Your task to perform on an android device: Open Android settings Image 0: 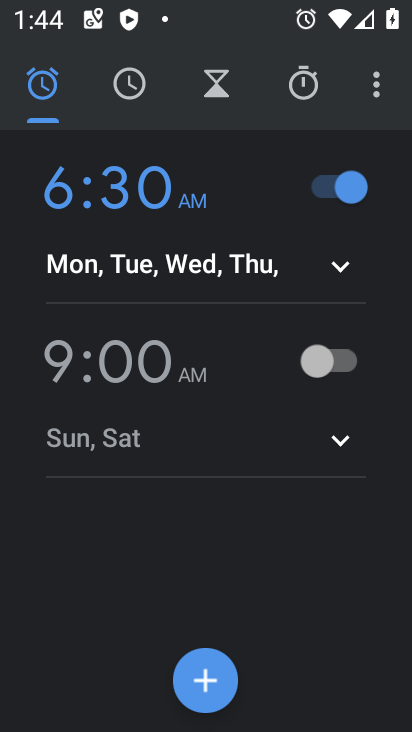
Step 0: press home button
Your task to perform on an android device: Open Android settings Image 1: 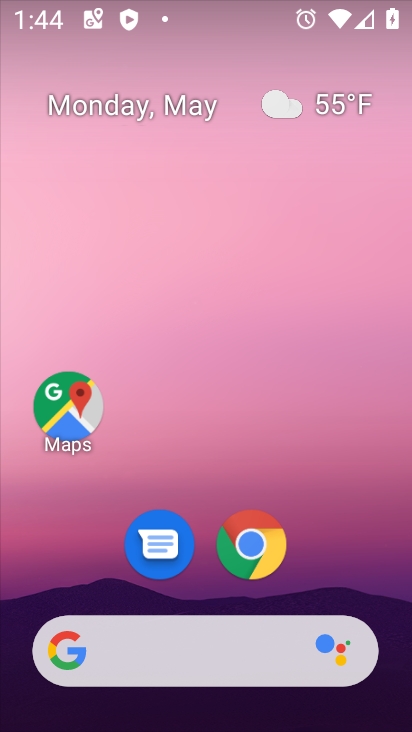
Step 1: drag from (401, 639) to (328, 6)
Your task to perform on an android device: Open Android settings Image 2: 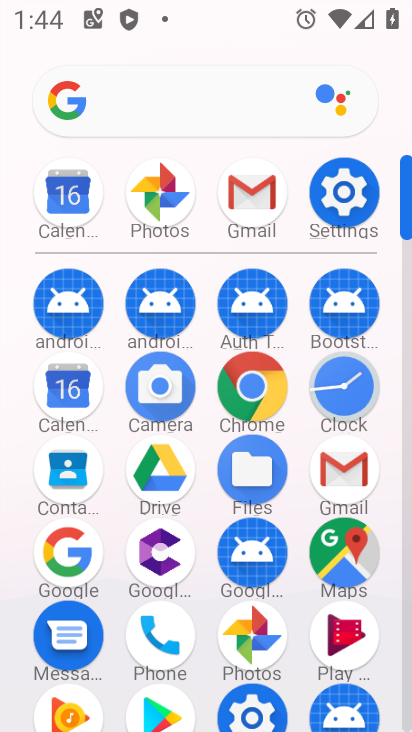
Step 2: click (409, 703)
Your task to perform on an android device: Open Android settings Image 3: 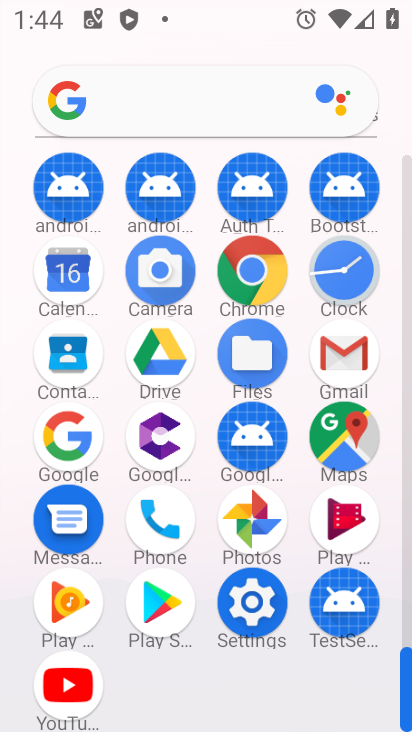
Step 3: click (251, 596)
Your task to perform on an android device: Open Android settings Image 4: 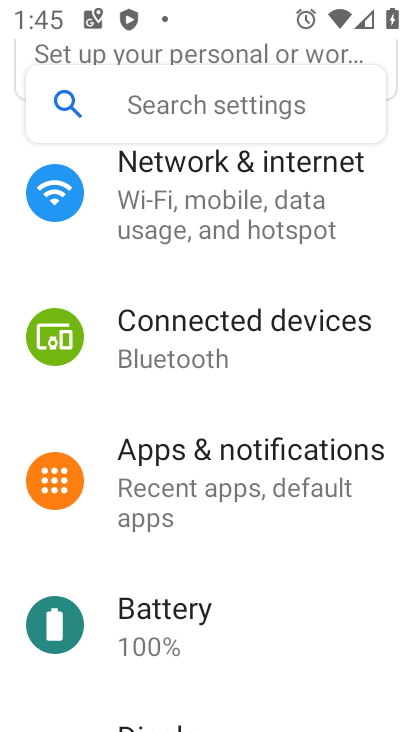
Step 4: drag from (286, 668) to (299, 199)
Your task to perform on an android device: Open Android settings Image 5: 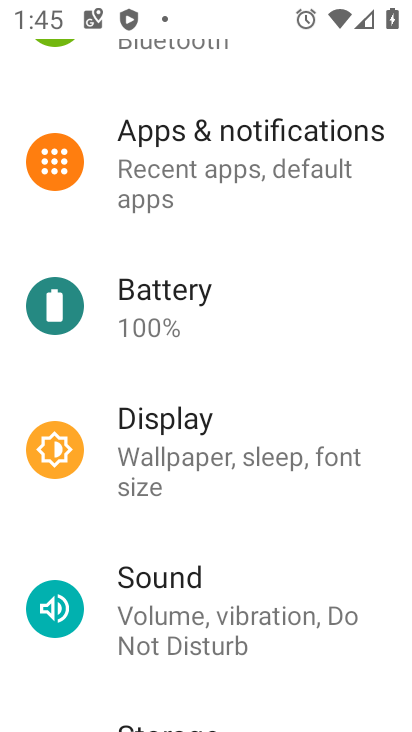
Step 5: drag from (333, 633) to (348, 251)
Your task to perform on an android device: Open Android settings Image 6: 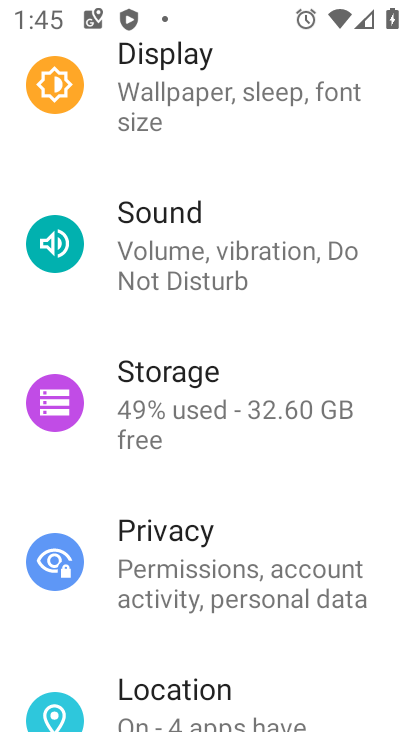
Step 6: drag from (368, 590) to (355, 125)
Your task to perform on an android device: Open Android settings Image 7: 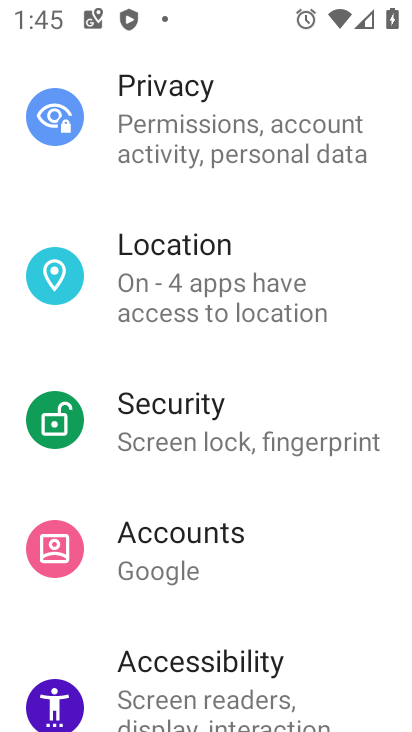
Step 7: drag from (344, 590) to (375, 244)
Your task to perform on an android device: Open Android settings Image 8: 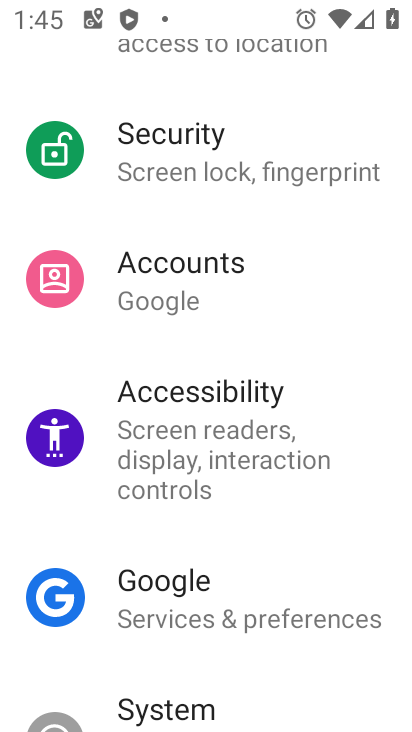
Step 8: drag from (360, 637) to (346, 141)
Your task to perform on an android device: Open Android settings Image 9: 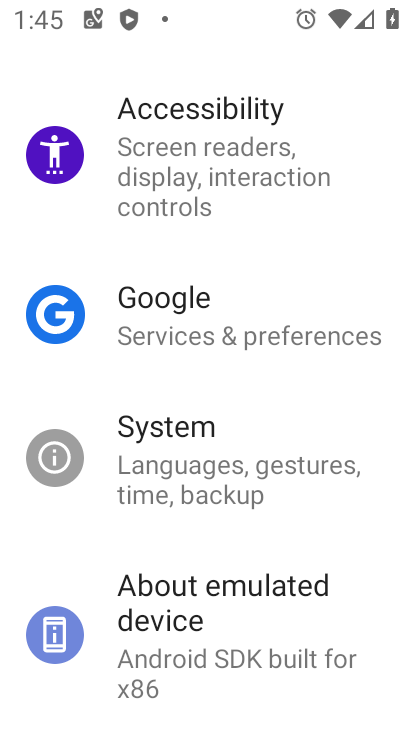
Step 9: click (206, 611)
Your task to perform on an android device: Open Android settings Image 10: 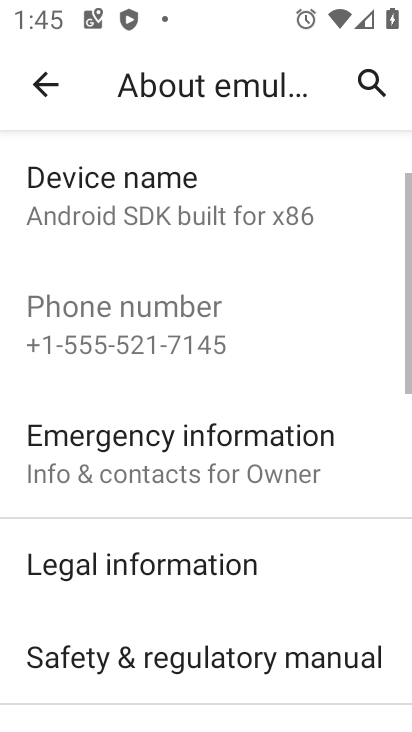
Step 10: task complete